Your task to perform on an android device: open a new tab in the chrome app Image 0: 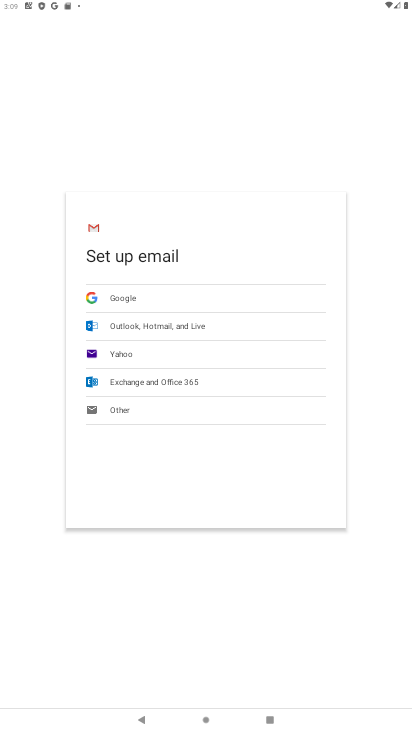
Step 0: press home button
Your task to perform on an android device: open a new tab in the chrome app Image 1: 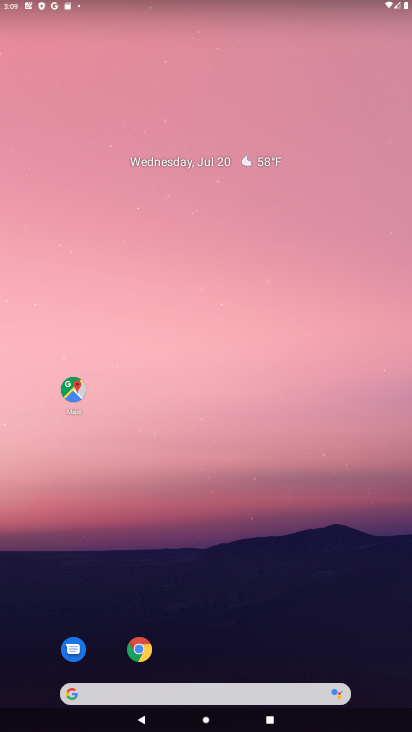
Step 1: drag from (238, 726) to (225, 285)
Your task to perform on an android device: open a new tab in the chrome app Image 2: 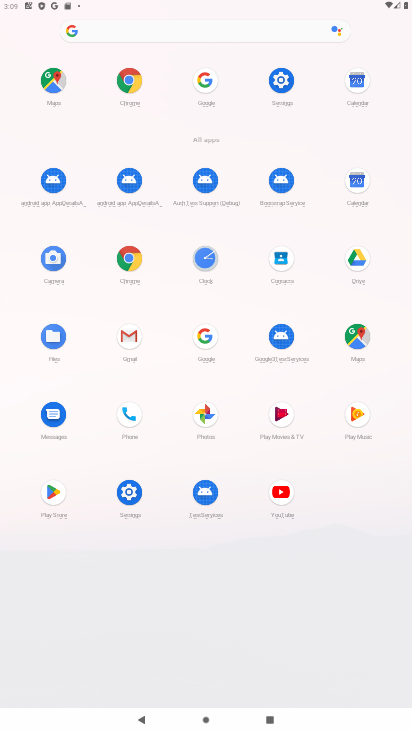
Step 2: click (127, 259)
Your task to perform on an android device: open a new tab in the chrome app Image 3: 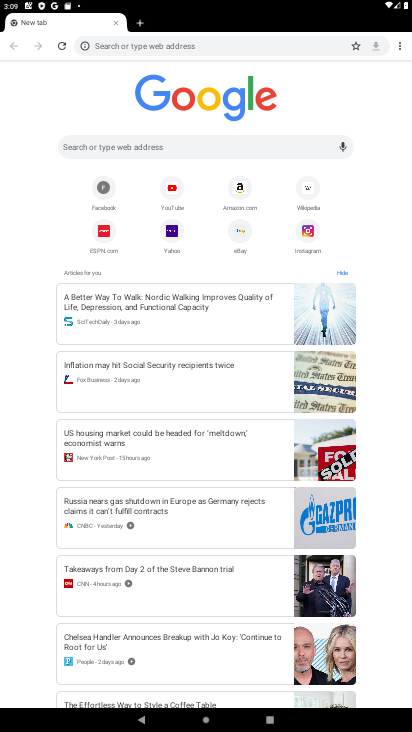
Step 3: click (398, 43)
Your task to perform on an android device: open a new tab in the chrome app Image 4: 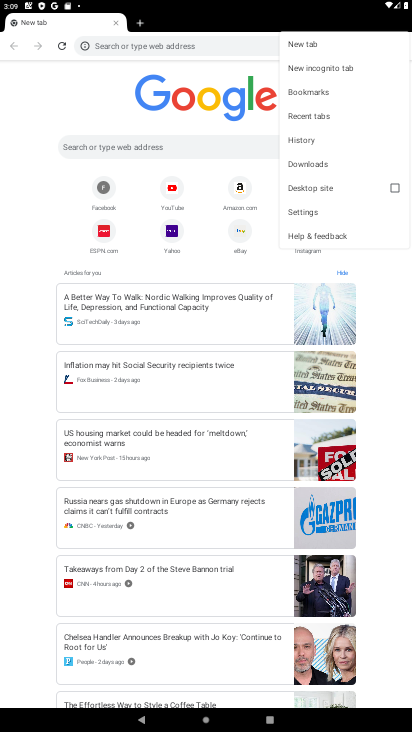
Step 4: click (306, 44)
Your task to perform on an android device: open a new tab in the chrome app Image 5: 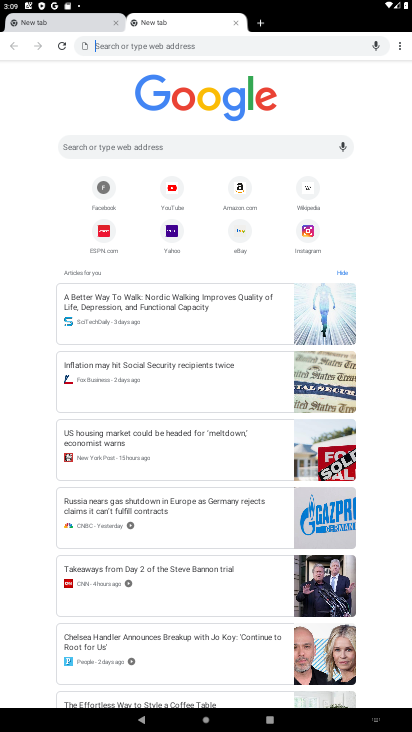
Step 5: task complete